Your task to perform on an android device: open app "Google Maps" Image 0: 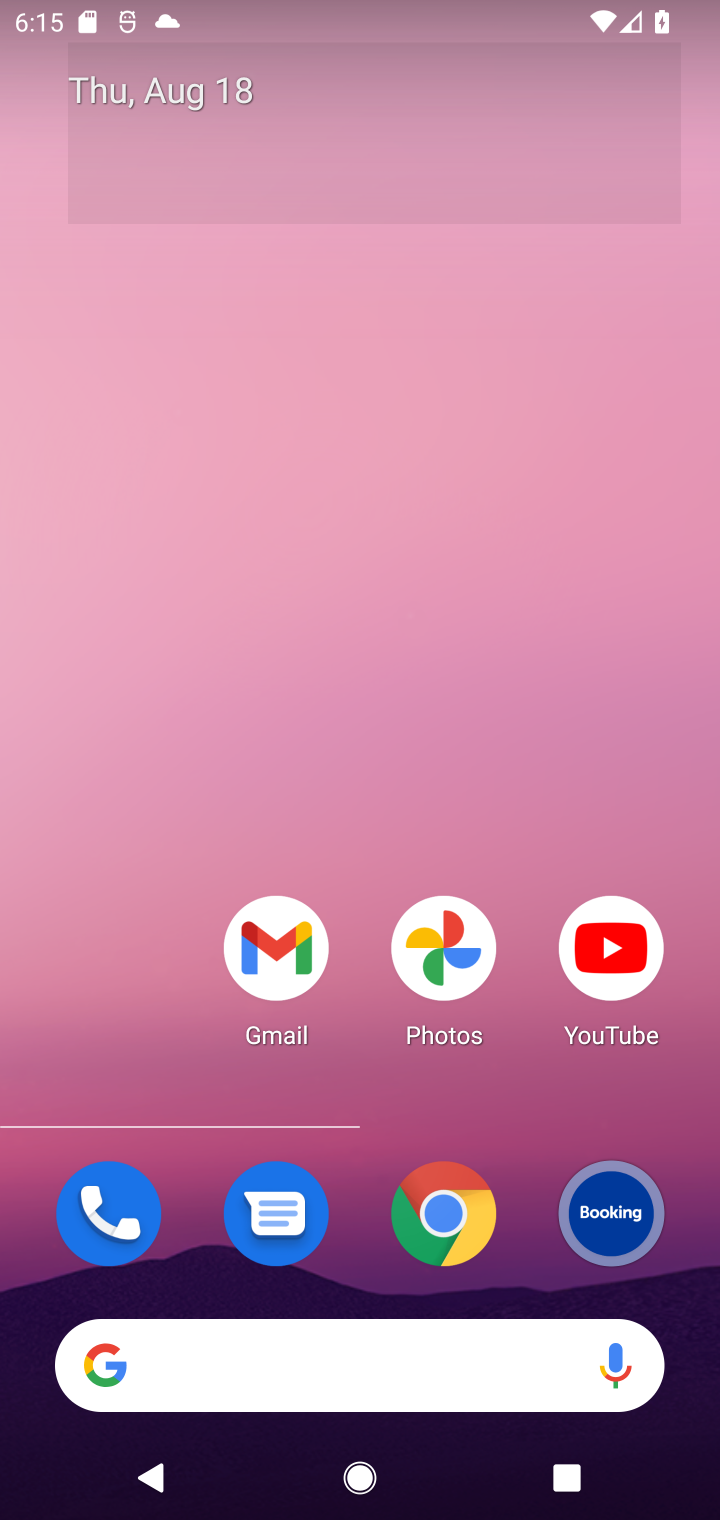
Step 0: press home button
Your task to perform on an android device: open app "Google Maps" Image 1: 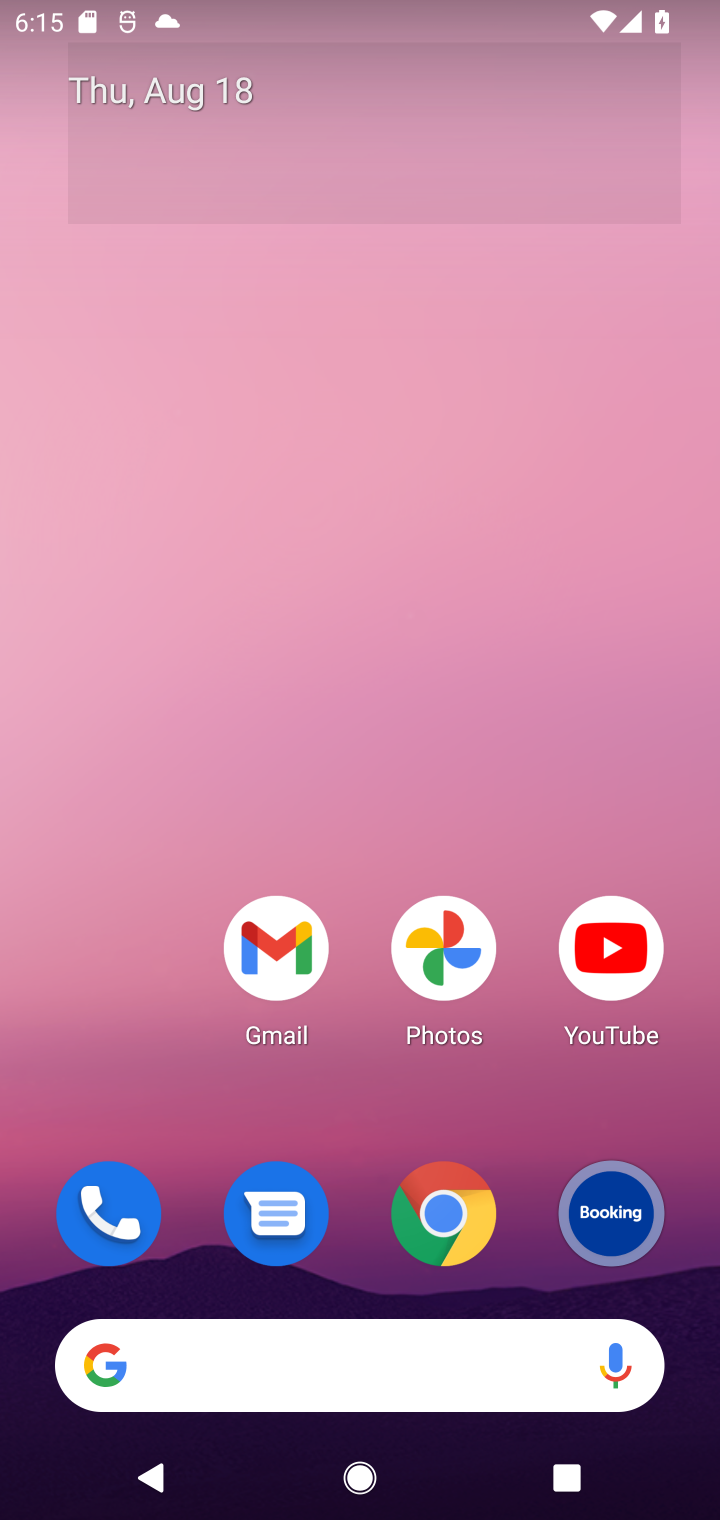
Step 1: drag from (352, 1088) to (387, 40)
Your task to perform on an android device: open app "Google Maps" Image 2: 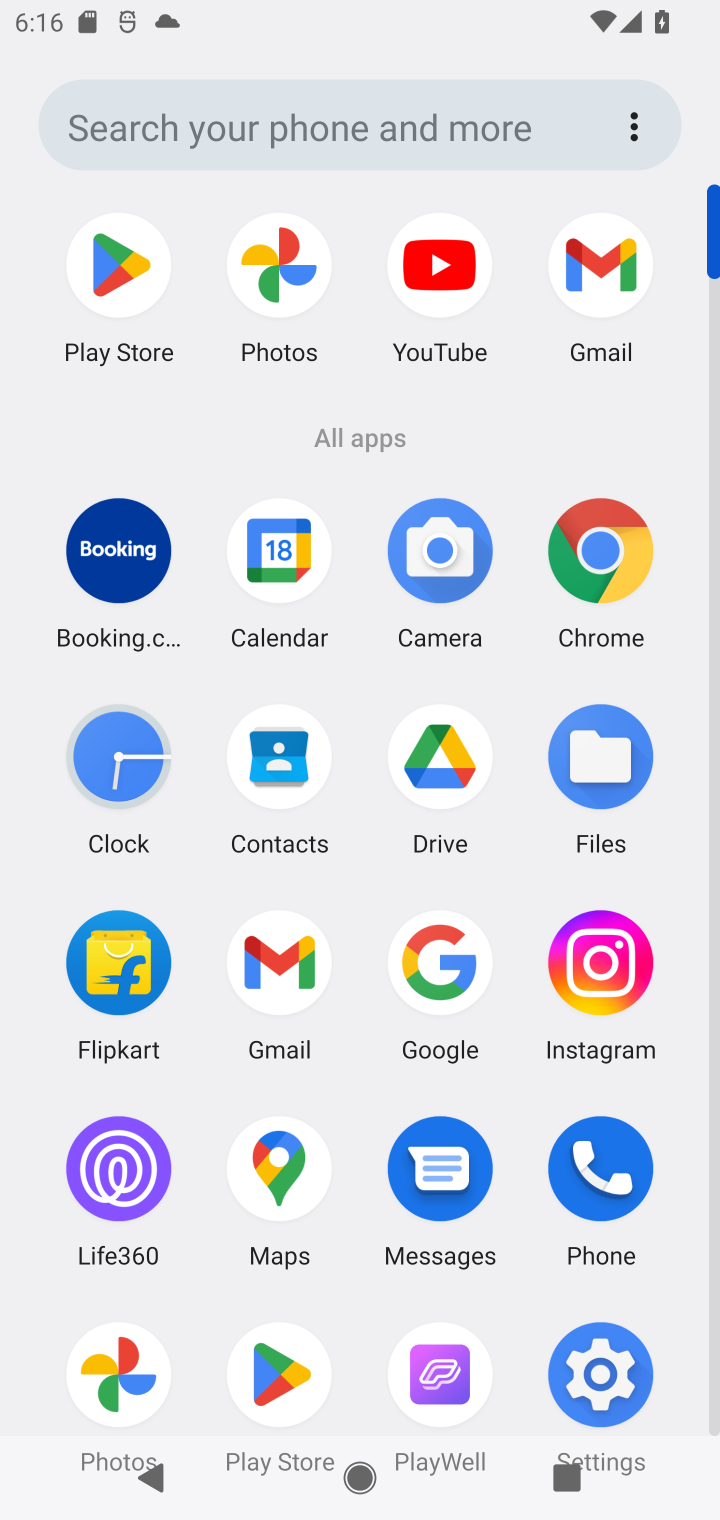
Step 2: click (112, 260)
Your task to perform on an android device: open app "Google Maps" Image 3: 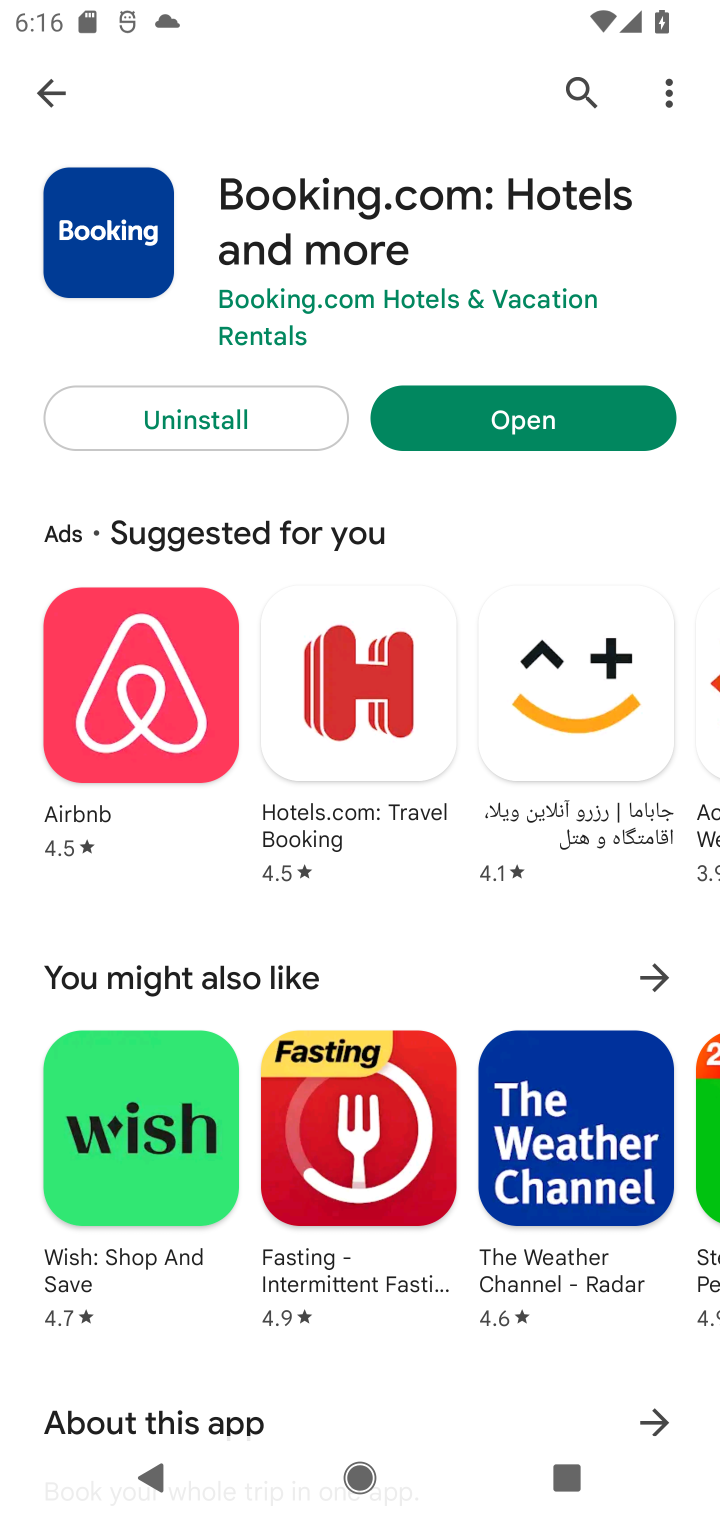
Step 3: click (571, 105)
Your task to perform on an android device: open app "Google Maps" Image 4: 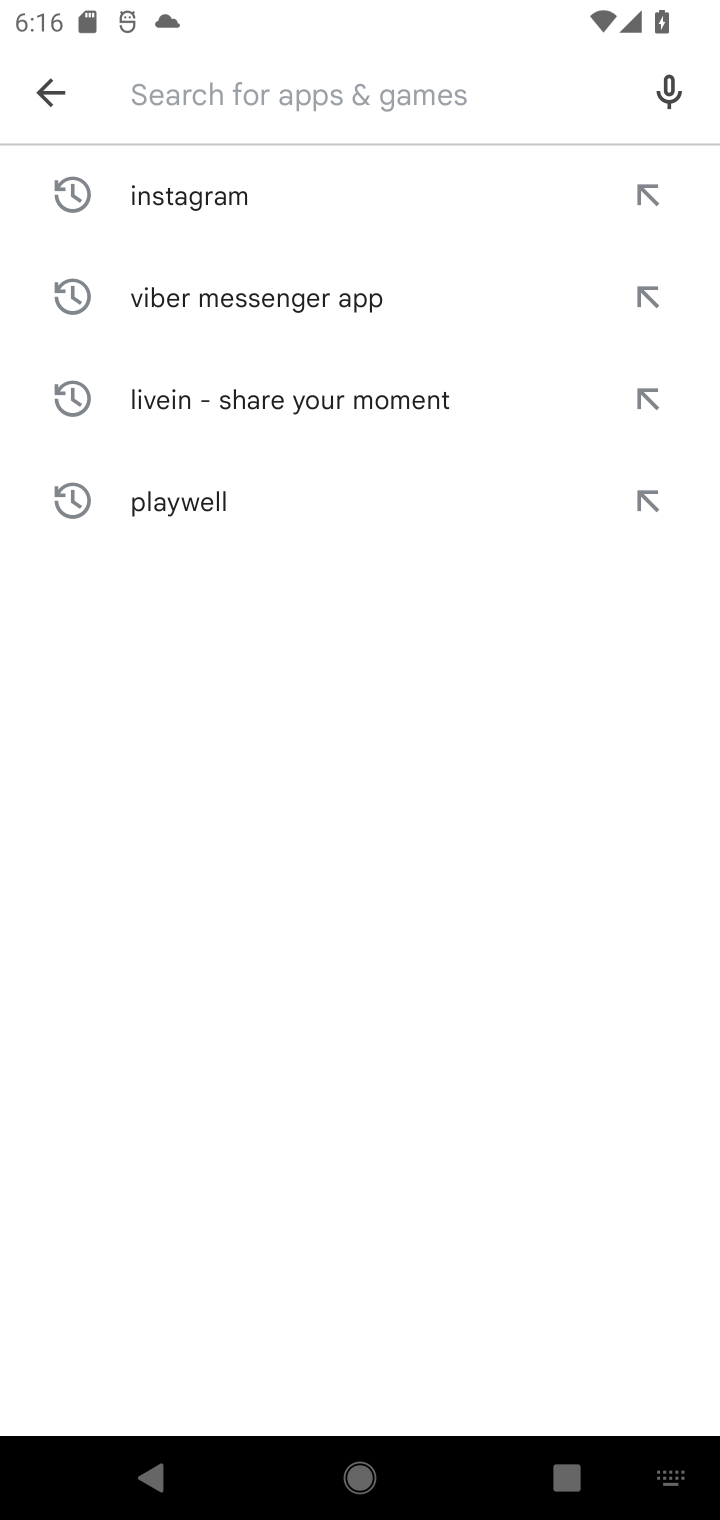
Step 4: type "Google Maps"
Your task to perform on an android device: open app "Google Maps" Image 5: 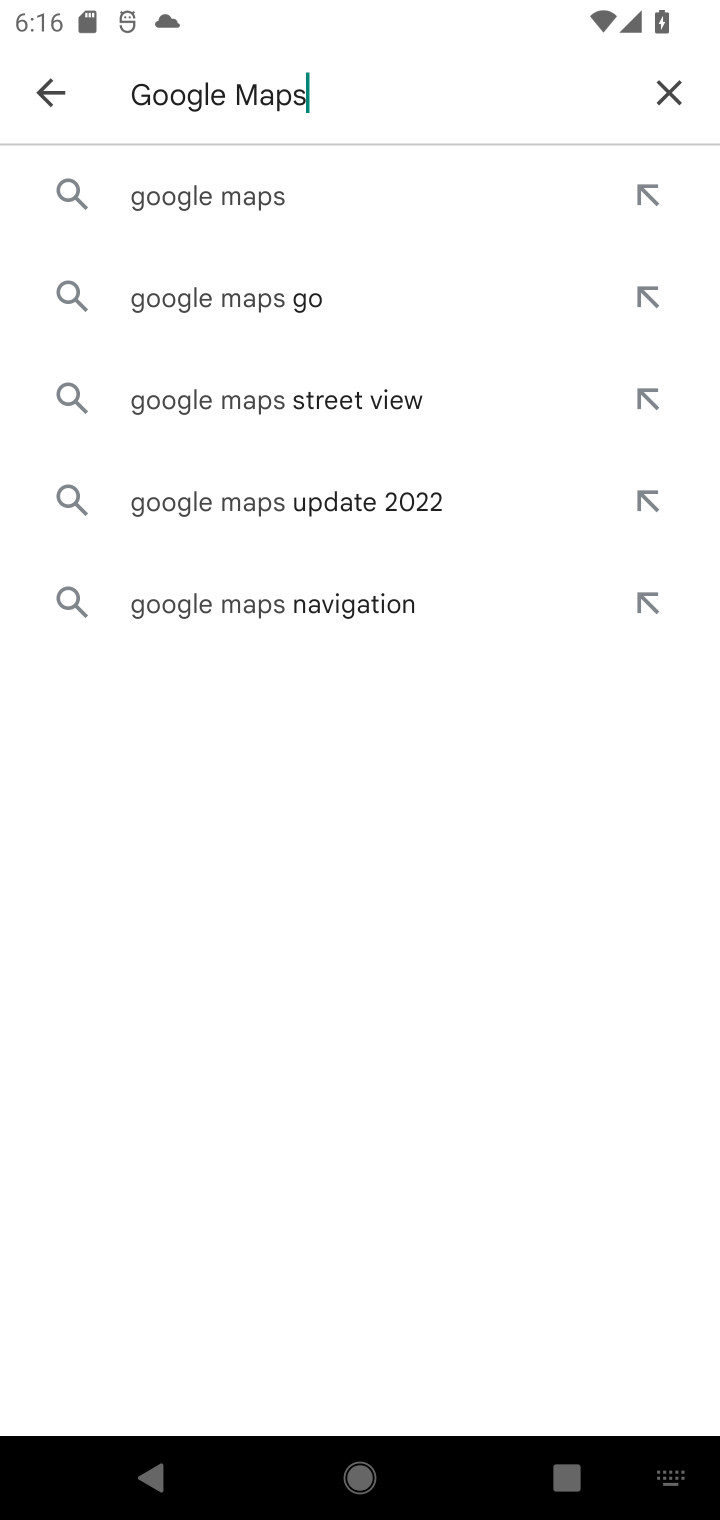
Step 5: click (360, 196)
Your task to perform on an android device: open app "Google Maps" Image 6: 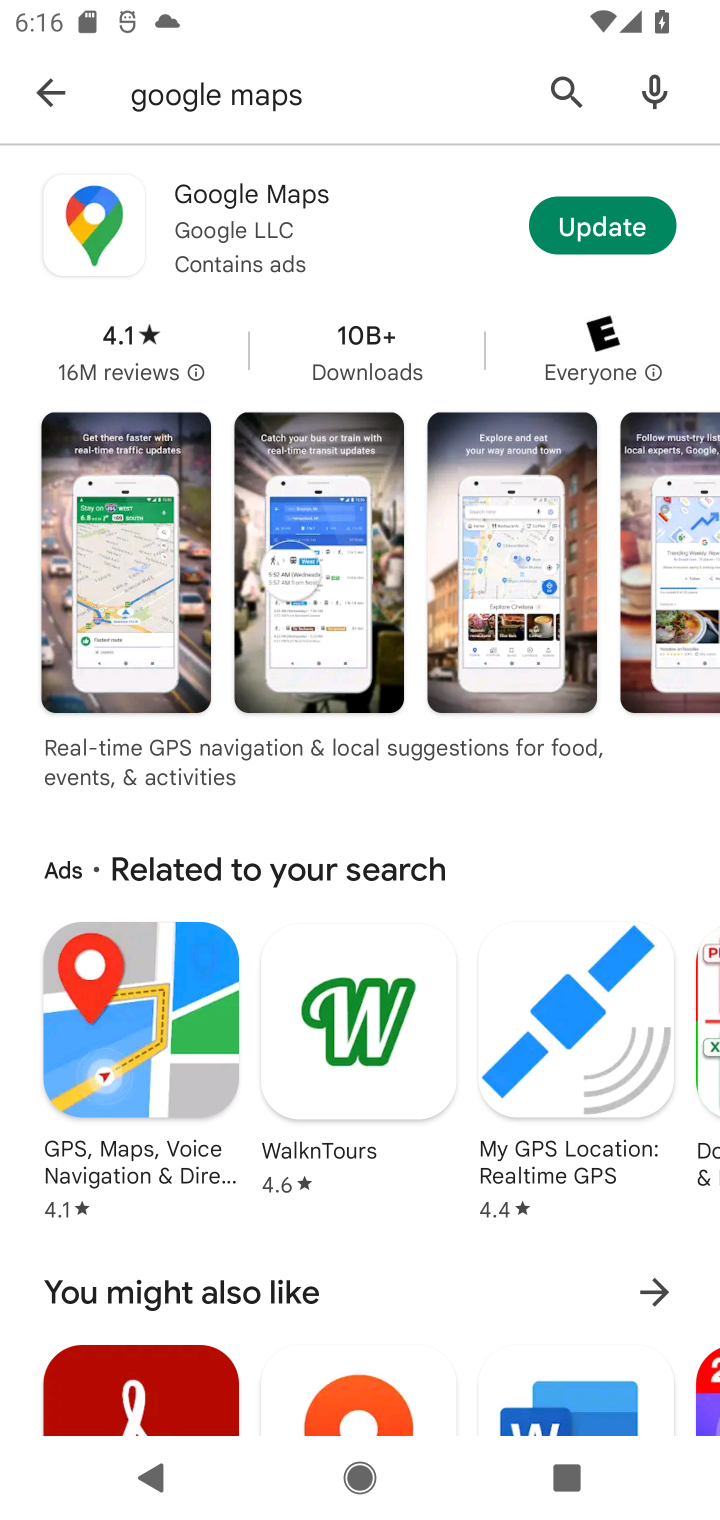
Step 6: click (604, 220)
Your task to perform on an android device: open app "Google Maps" Image 7: 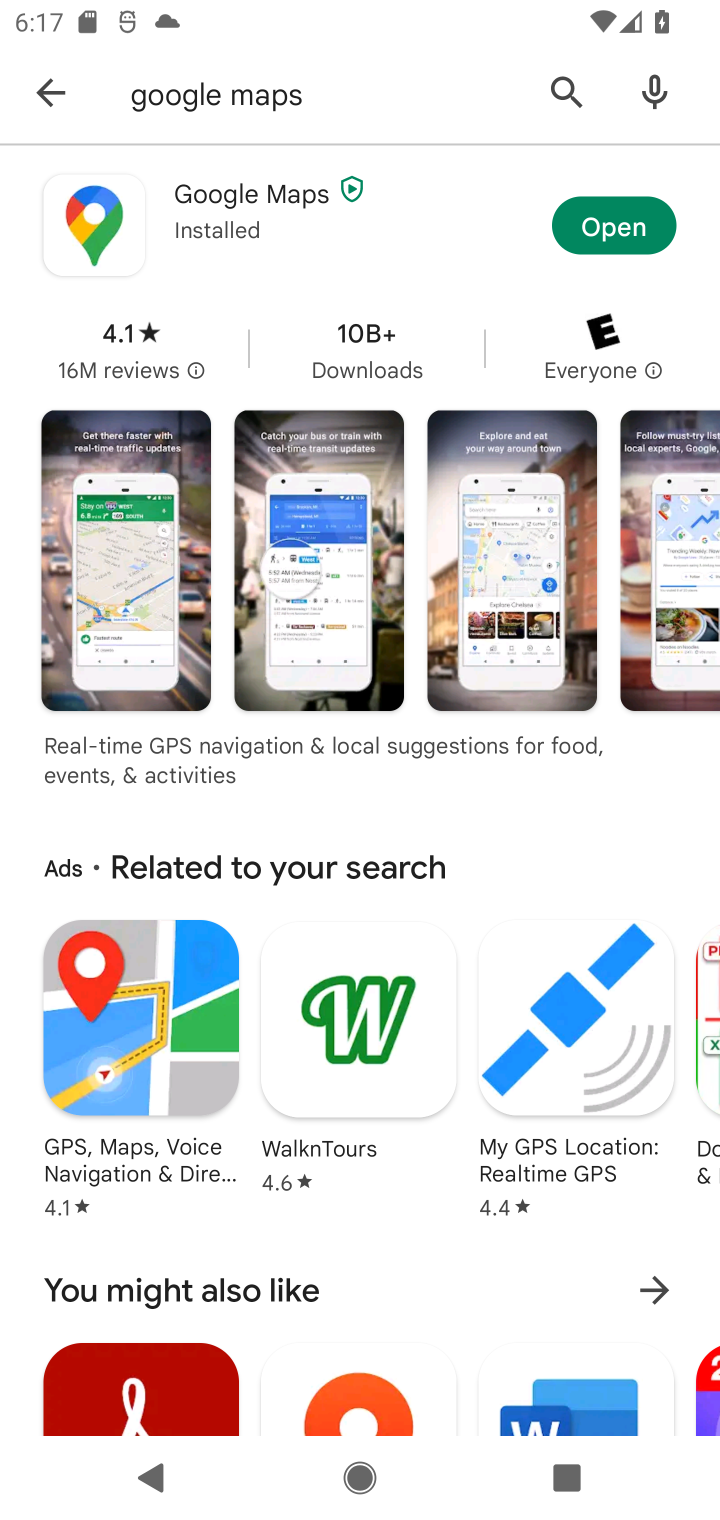
Step 7: click (621, 221)
Your task to perform on an android device: open app "Google Maps" Image 8: 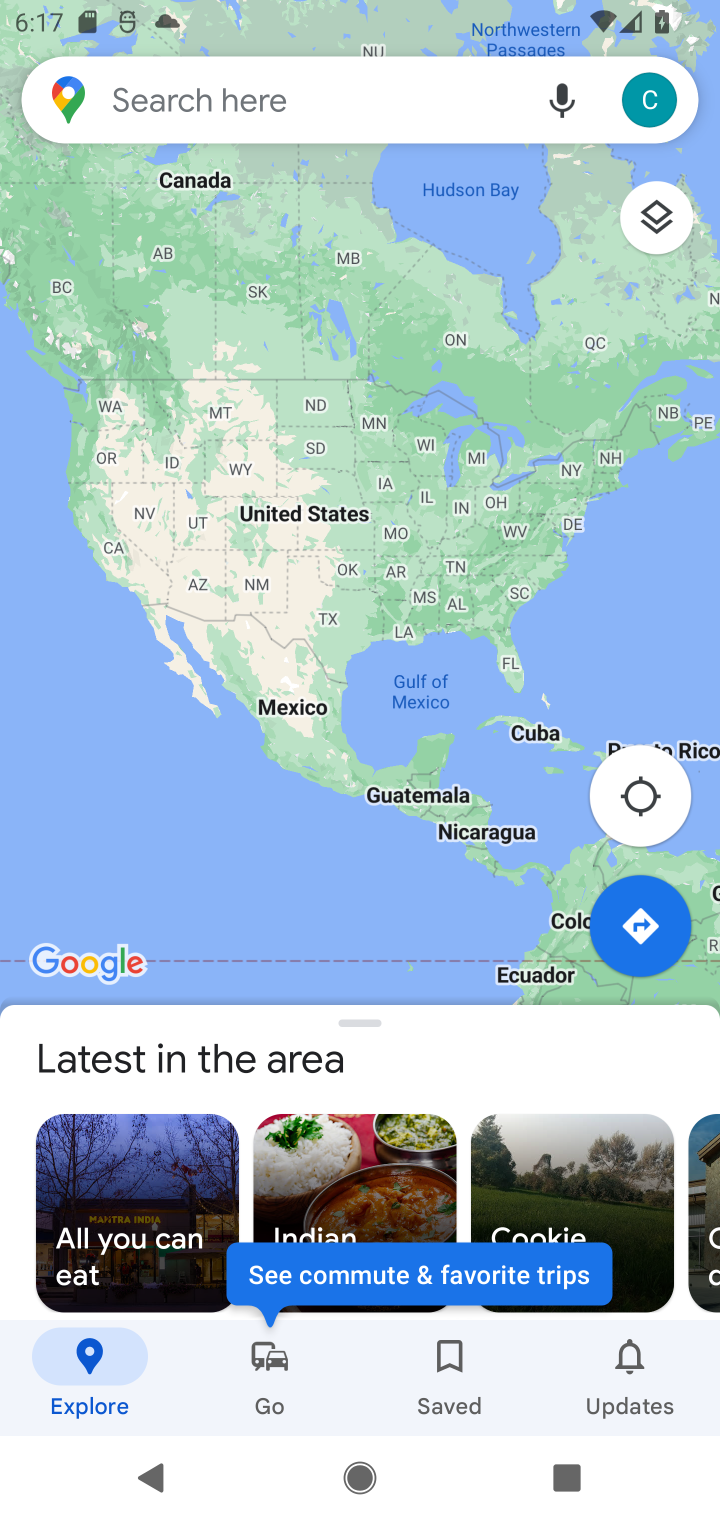
Step 8: task complete